Your task to perform on an android device: Clear the cart on amazon.com. Image 0: 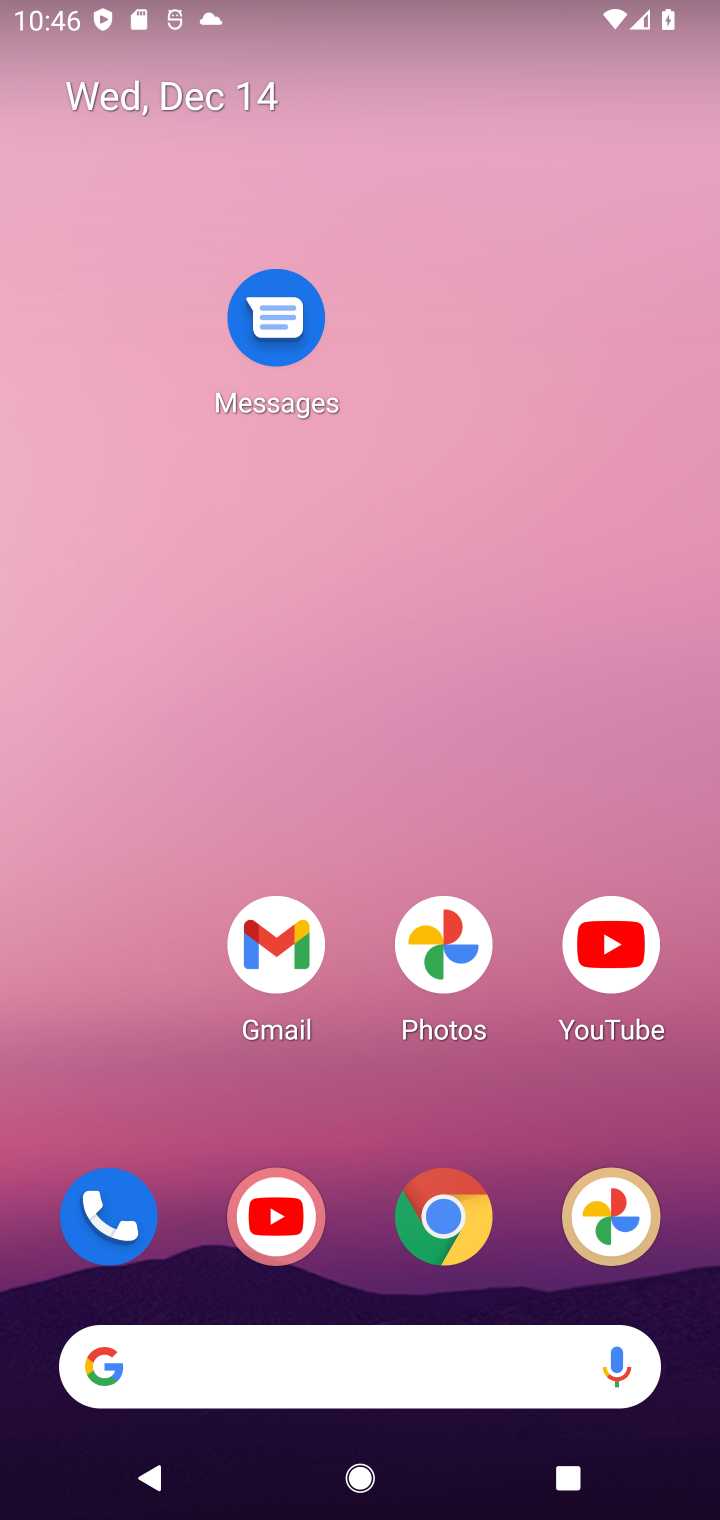
Step 0: drag from (312, 1376) to (341, 427)
Your task to perform on an android device: Clear the cart on amazon.com. Image 1: 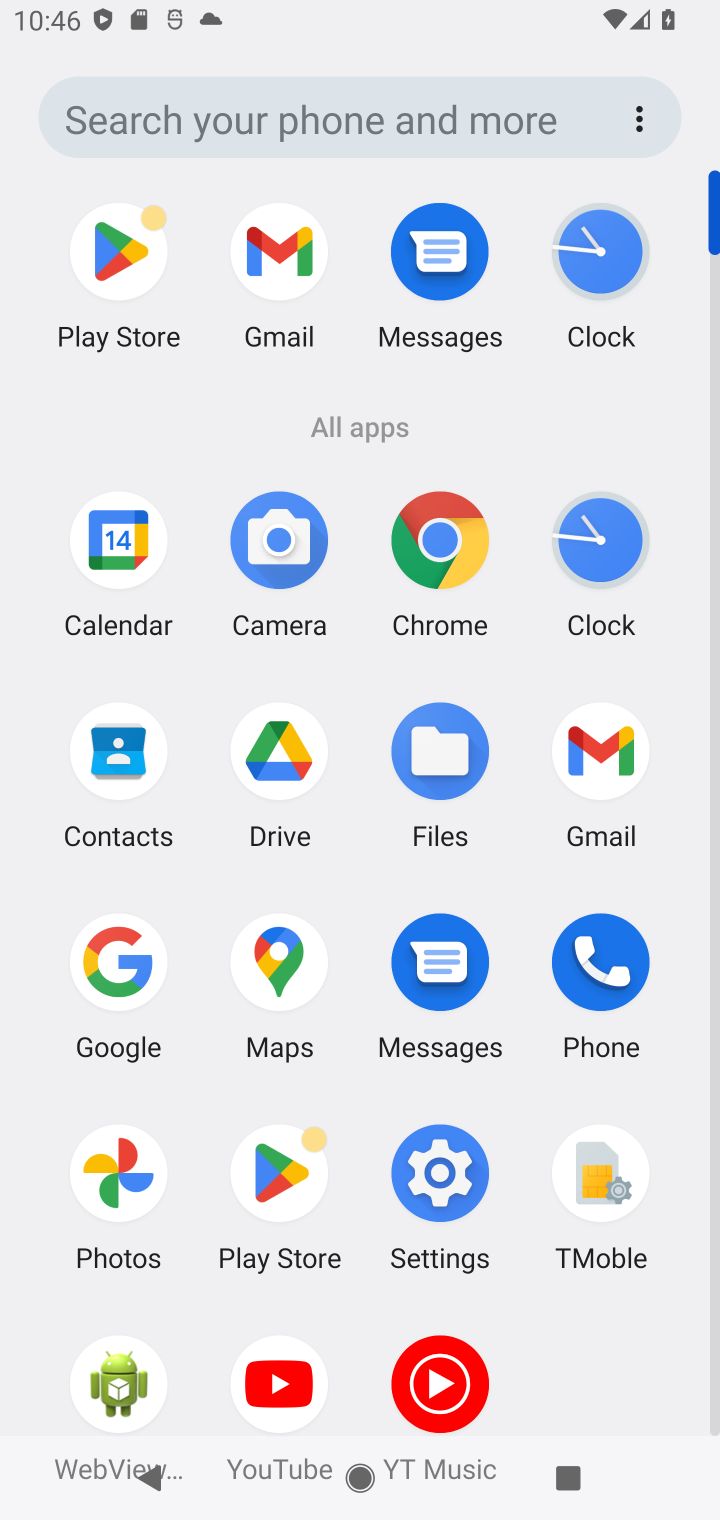
Step 1: click (133, 950)
Your task to perform on an android device: Clear the cart on amazon.com. Image 2: 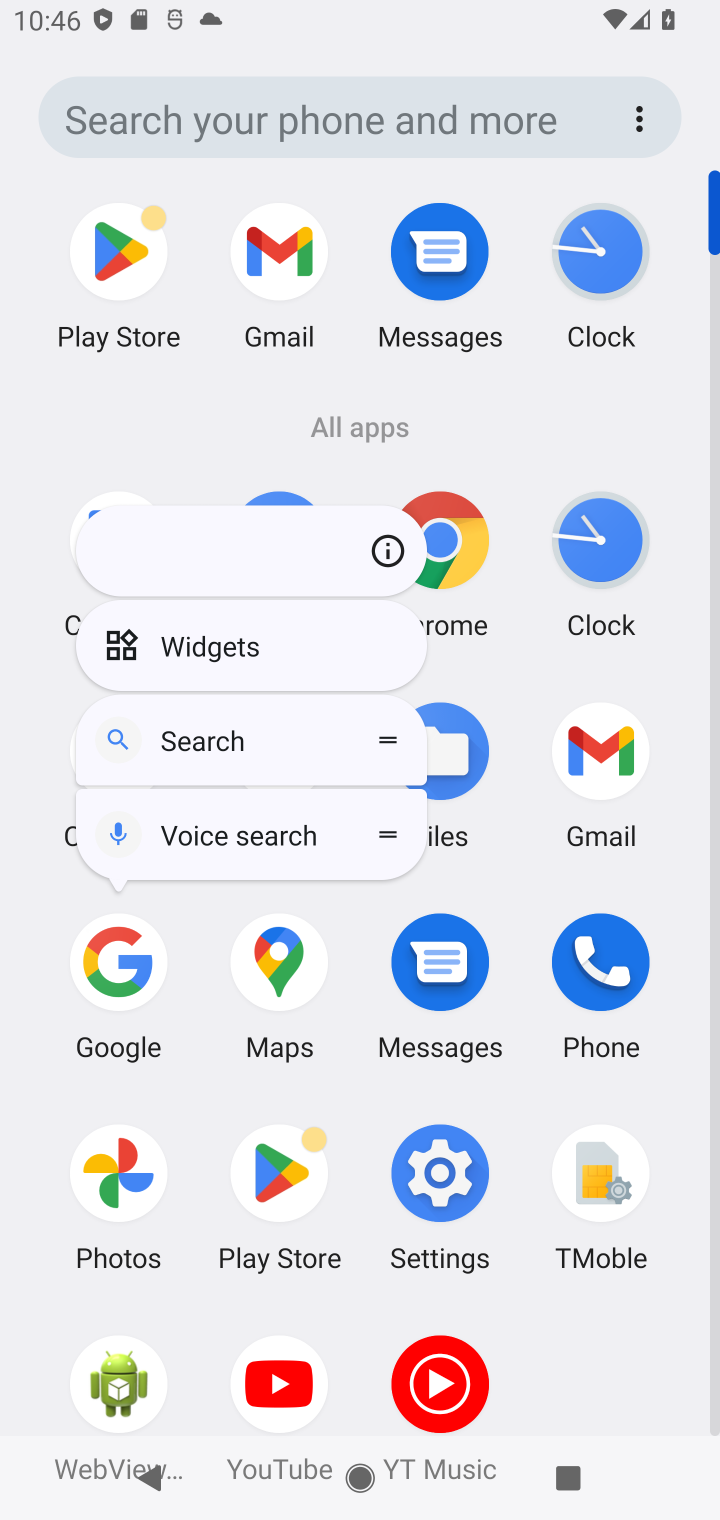
Step 2: click (120, 979)
Your task to perform on an android device: Clear the cart on amazon.com. Image 3: 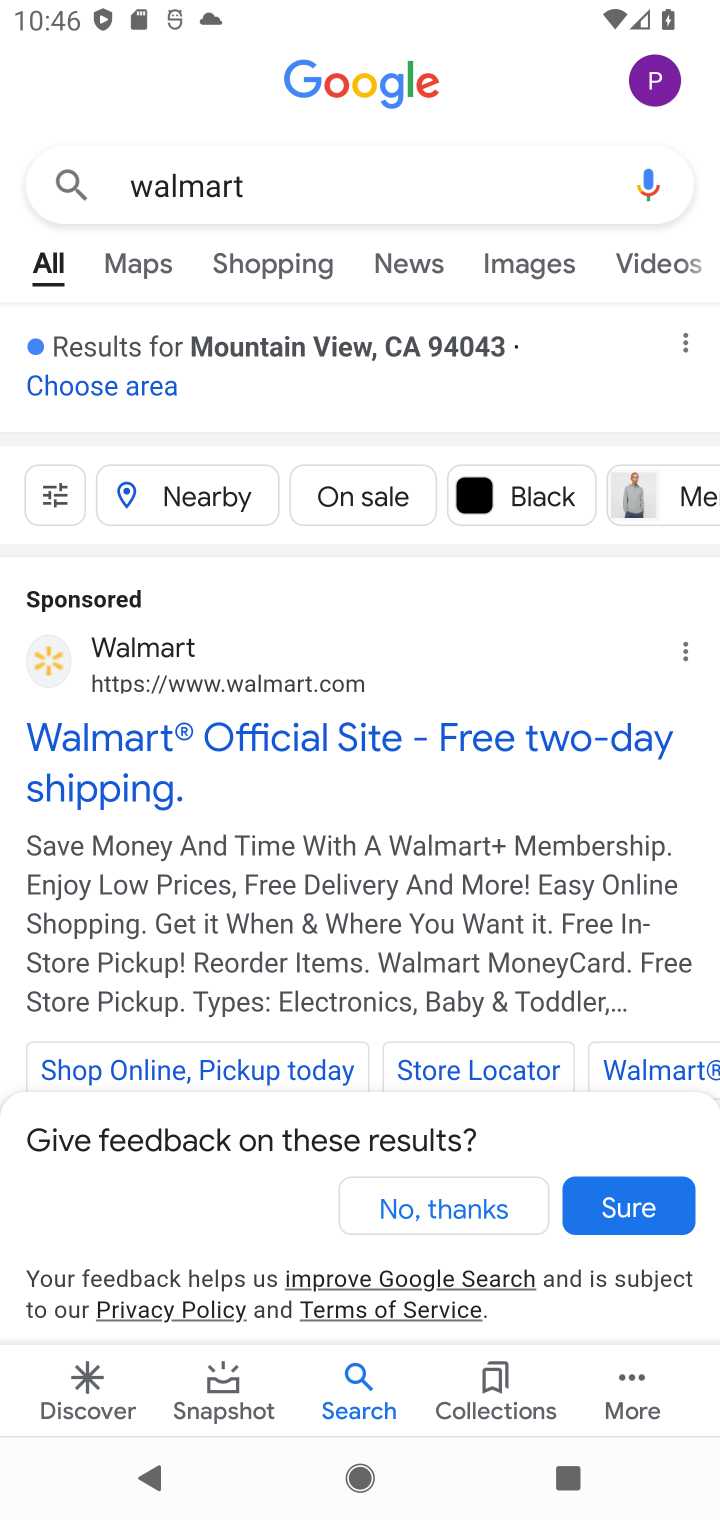
Step 3: click (268, 187)
Your task to perform on an android device: Clear the cart on amazon.com. Image 4: 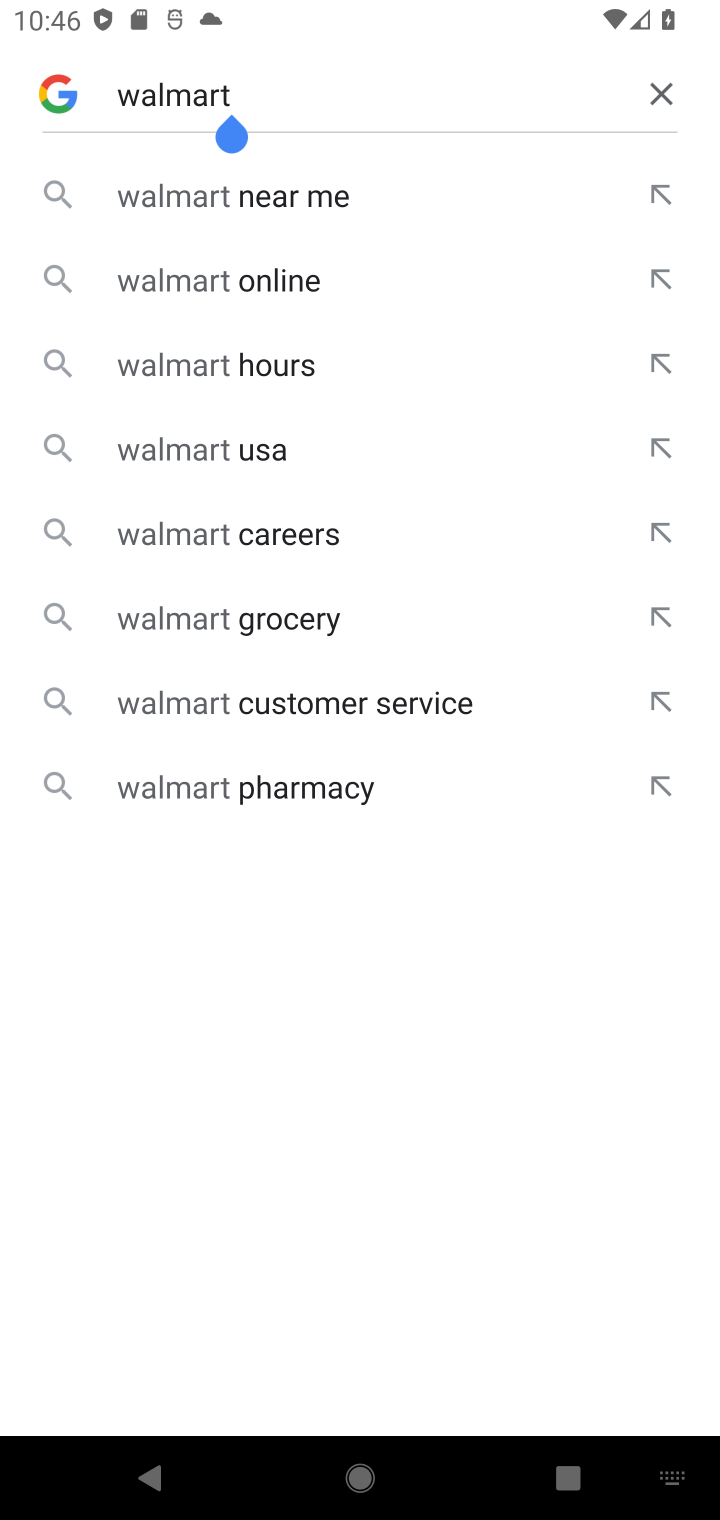
Step 4: click (653, 103)
Your task to perform on an android device: Clear the cart on amazon.com. Image 5: 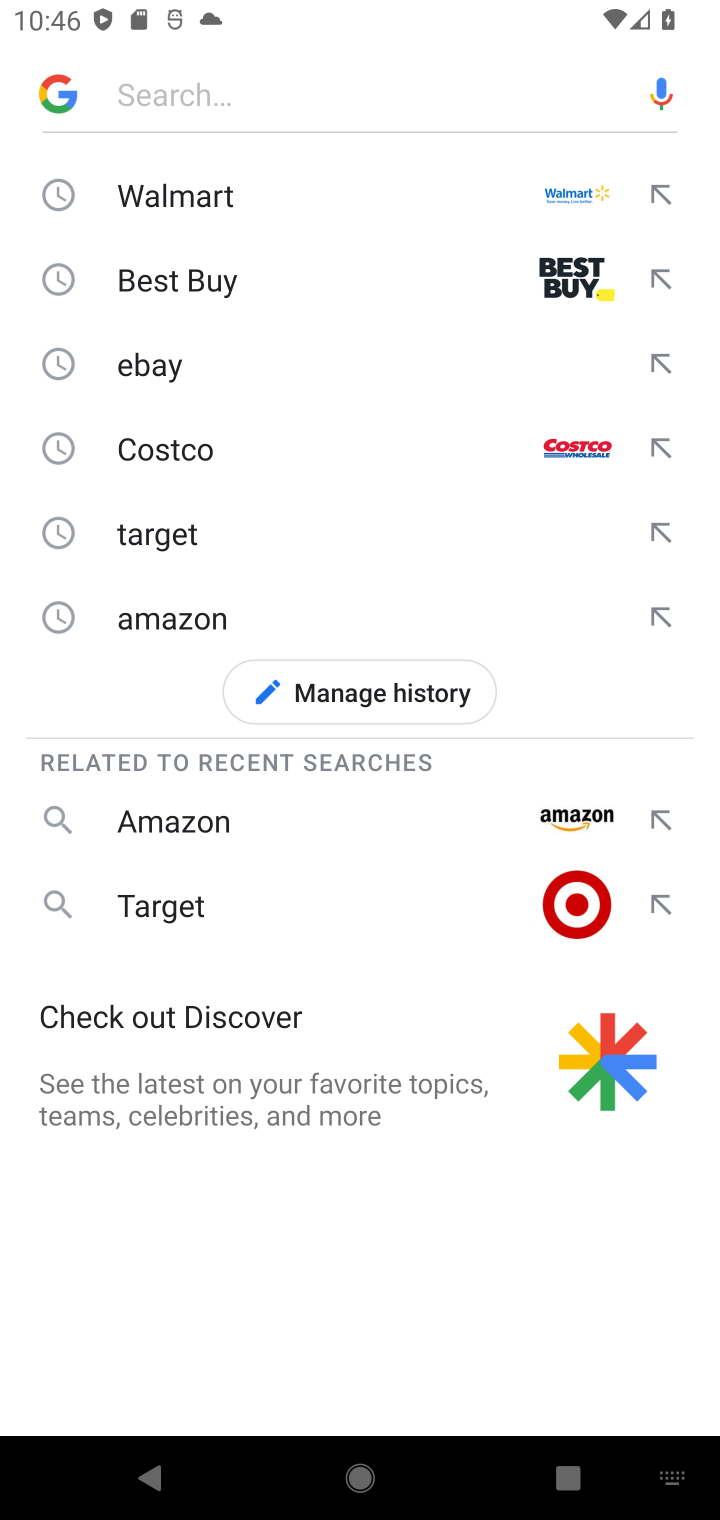
Step 5: click (189, 624)
Your task to perform on an android device: Clear the cart on amazon.com. Image 6: 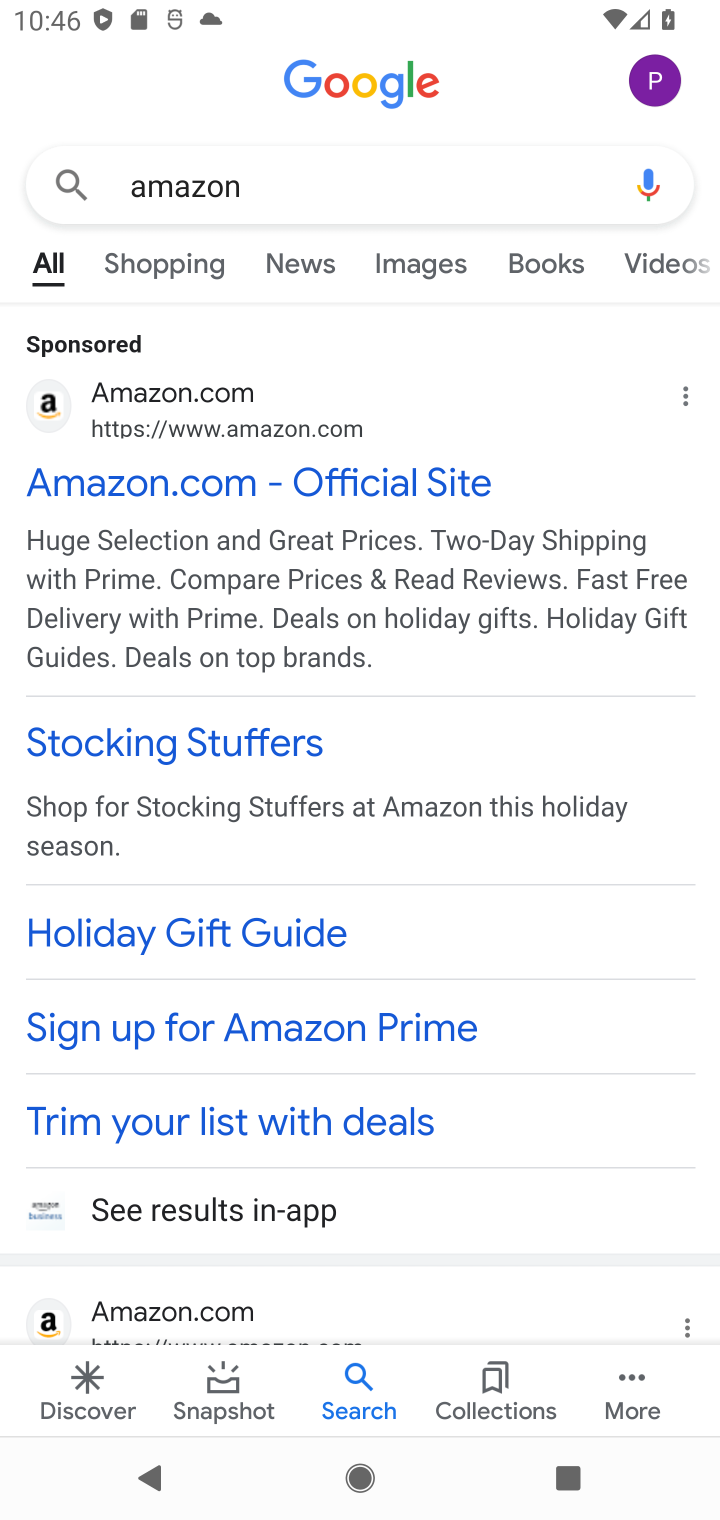
Step 6: click (183, 475)
Your task to perform on an android device: Clear the cart on amazon.com. Image 7: 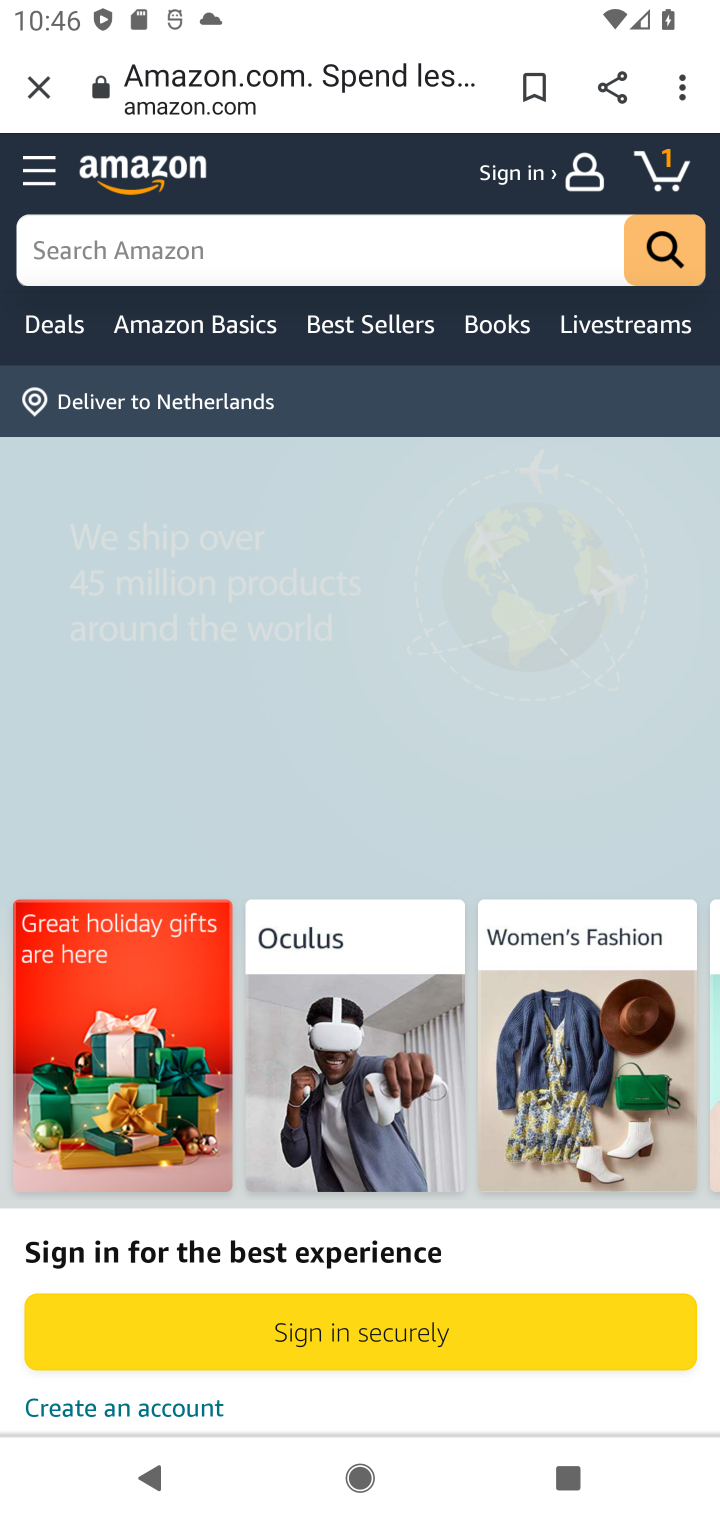
Step 7: click (667, 175)
Your task to perform on an android device: Clear the cart on amazon.com. Image 8: 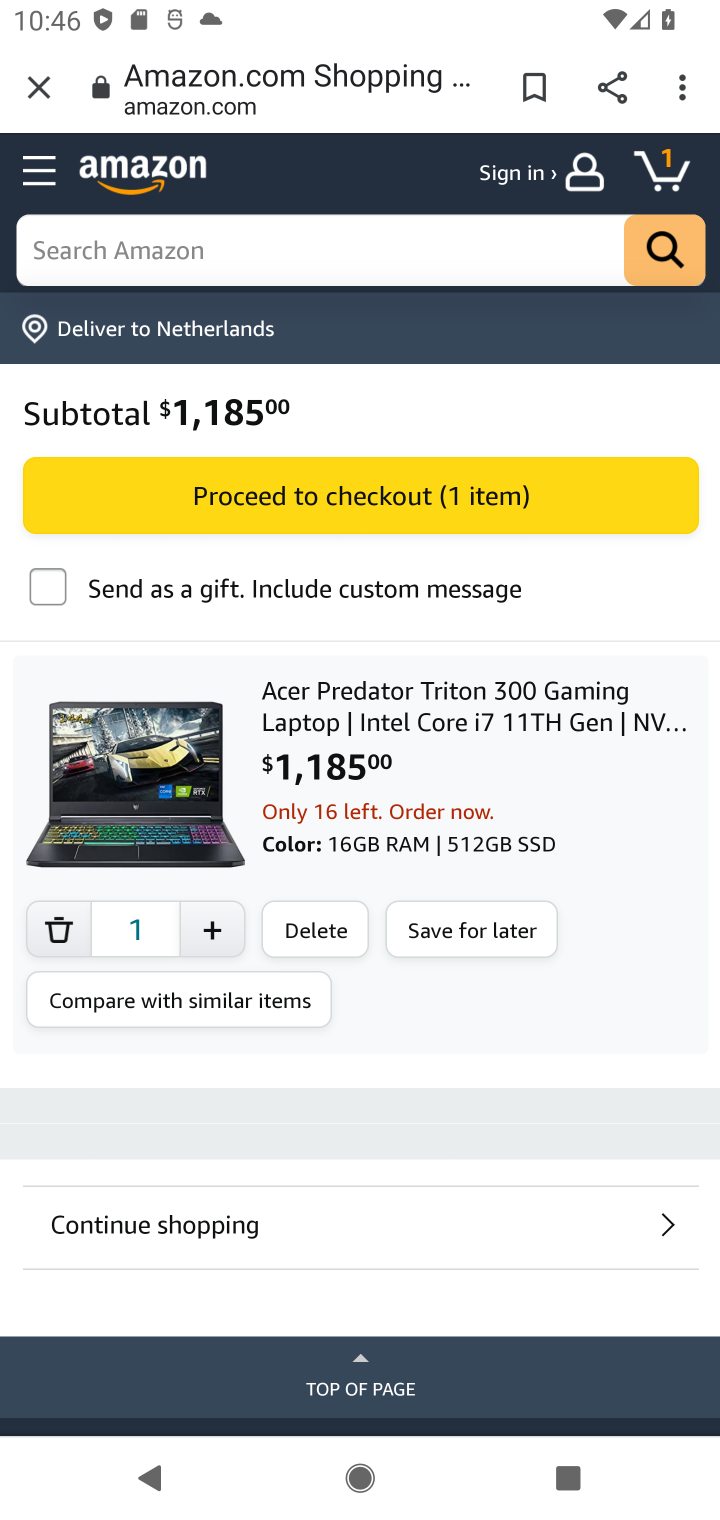
Step 8: click (52, 917)
Your task to perform on an android device: Clear the cart on amazon.com. Image 9: 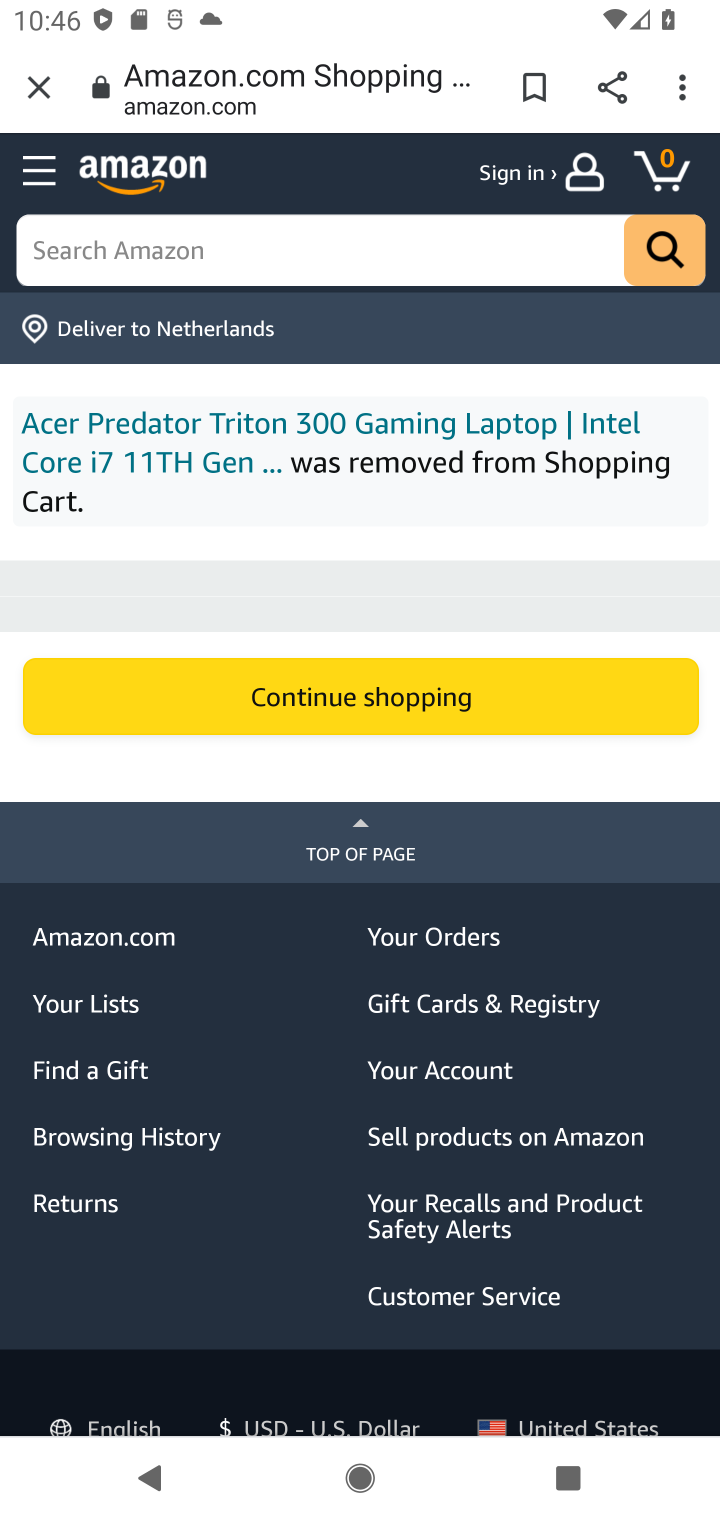
Step 9: task complete